Your task to perform on an android device: Search for logitech g910 on amazon.com, select the first entry, add it to the cart, then select checkout. Image 0: 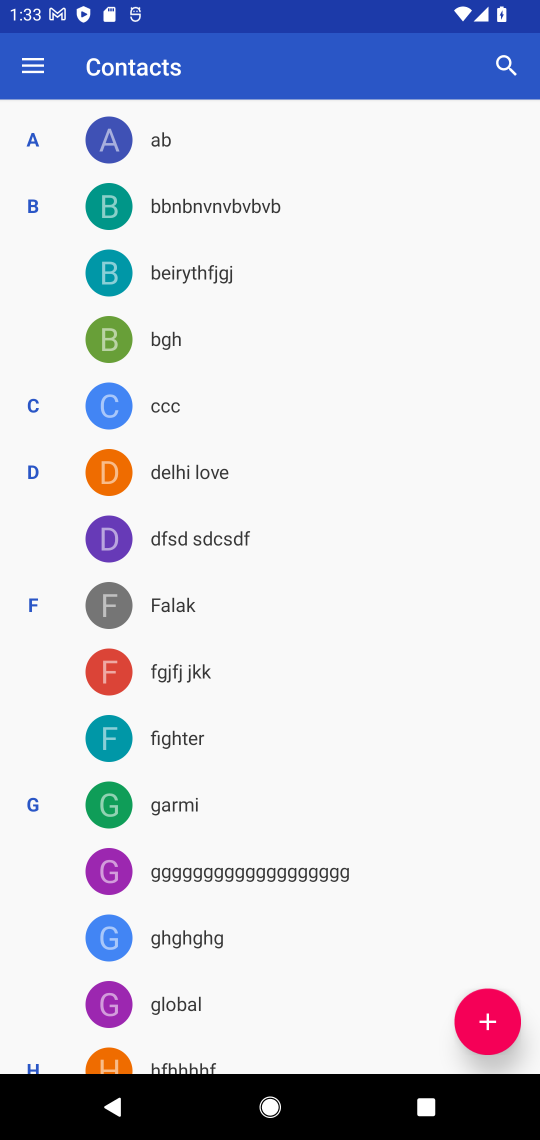
Step 0: press home button
Your task to perform on an android device: Search for logitech g910 on amazon.com, select the first entry, add it to the cart, then select checkout. Image 1: 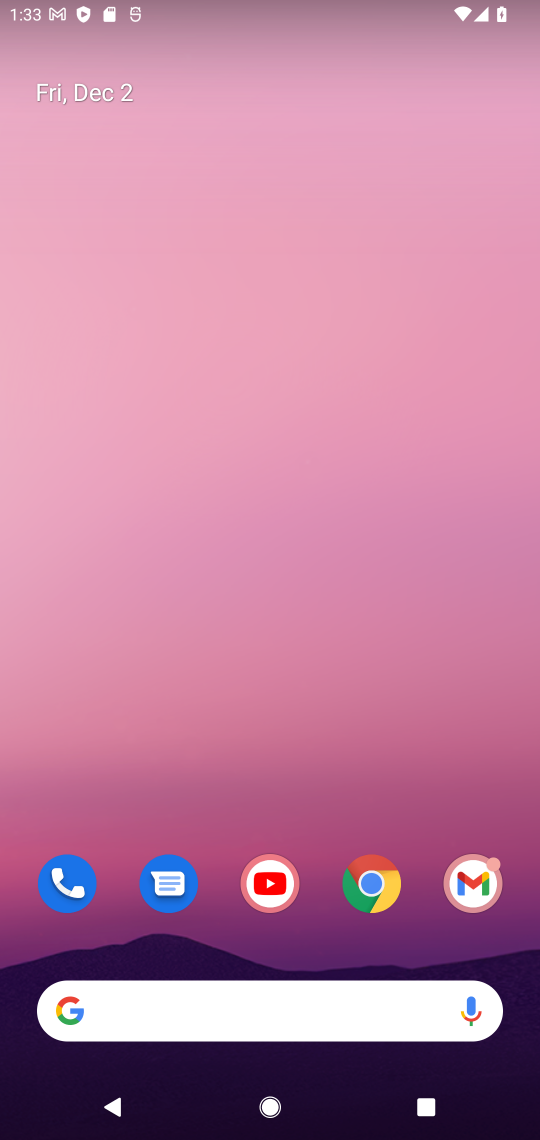
Step 1: click (355, 868)
Your task to perform on an android device: Search for logitech g910 on amazon.com, select the first entry, add it to the cart, then select checkout. Image 2: 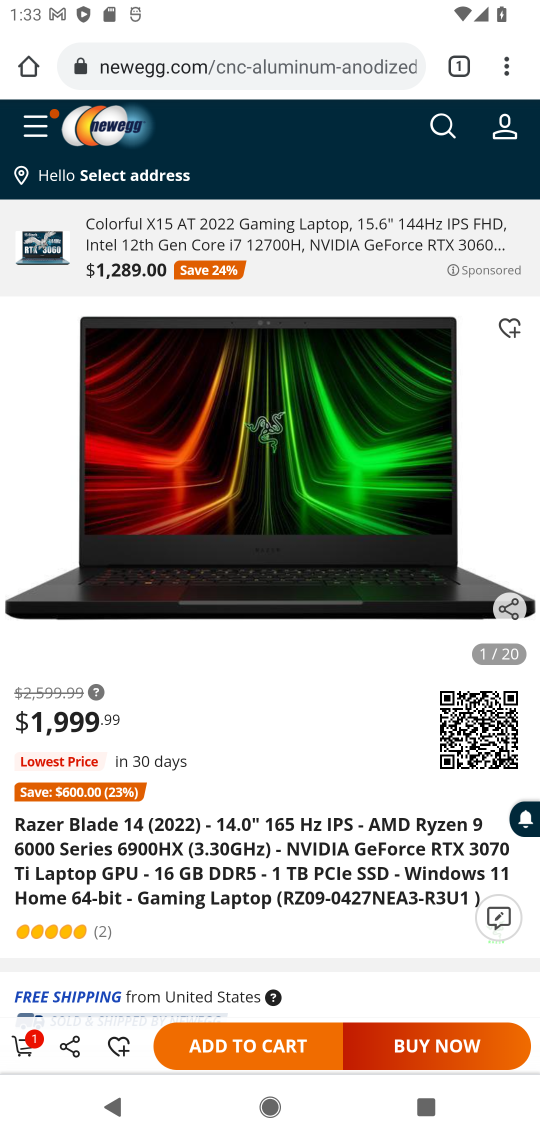
Step 2: click (205, 71)
Your task to perform on an android device: Search for logitech g910 on amazon.com, select the first entry, add it to the cart, then select checkout. Image 3: 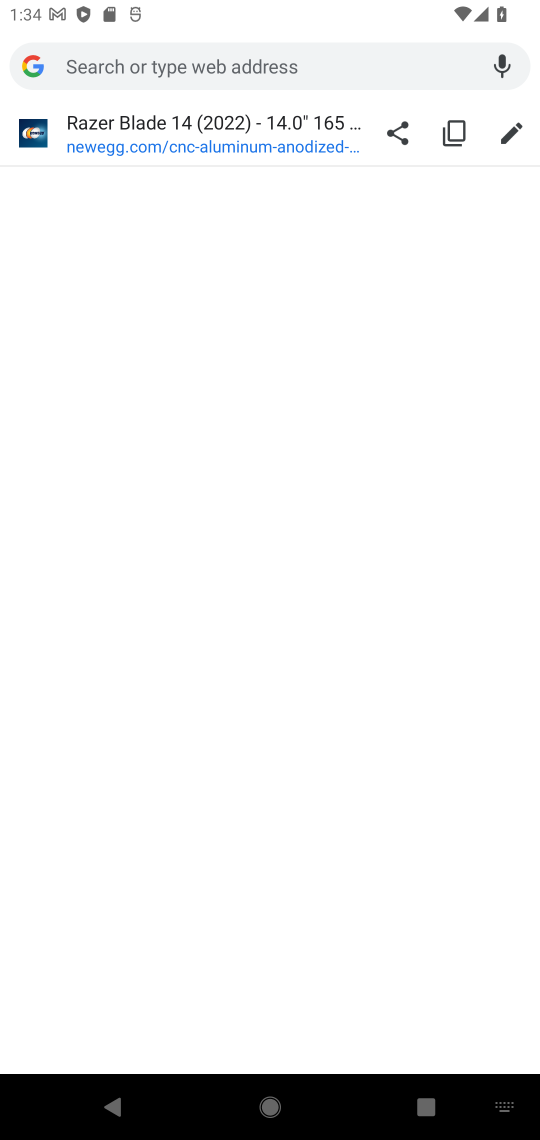
Step 3: type "amazon.com"
Your task to perform on an android device: Search for logitech g910 on amazon.com, select the first entry, add it to the cart, then select checkout. Image 4: 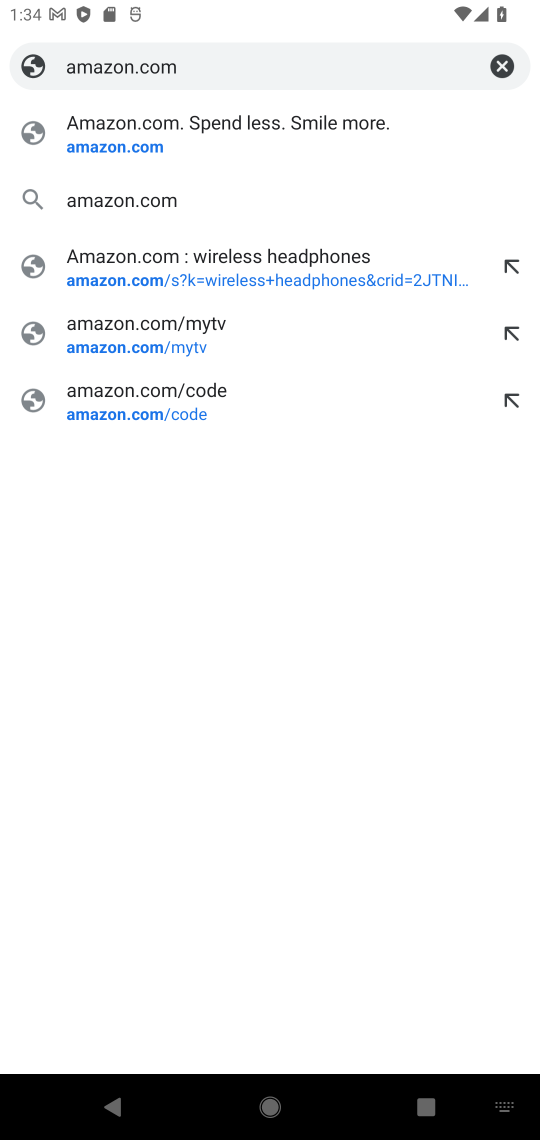
Step 4: click (238, 133)
Your task to perform on an android device: Search for logitech g910 on amazon.com, select the first entry, add it to the cart, then select checkout. Image 5: 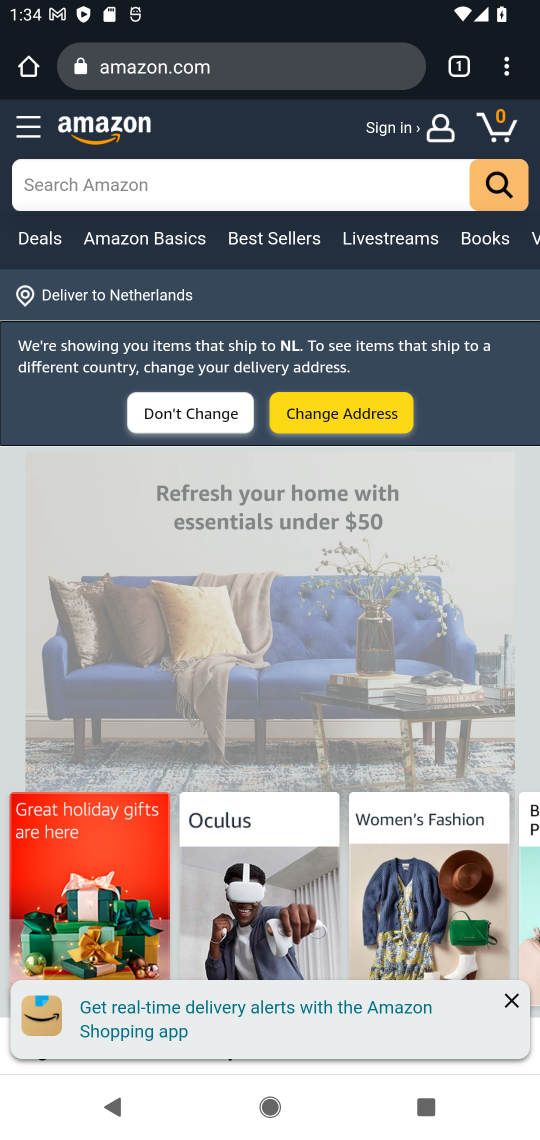
Step 5: click (178, 195)
Your task to perform on an android device: Search for logitech g910 on amazon.com, select the first entry, add it to the cart, then select checkout. Image 6: 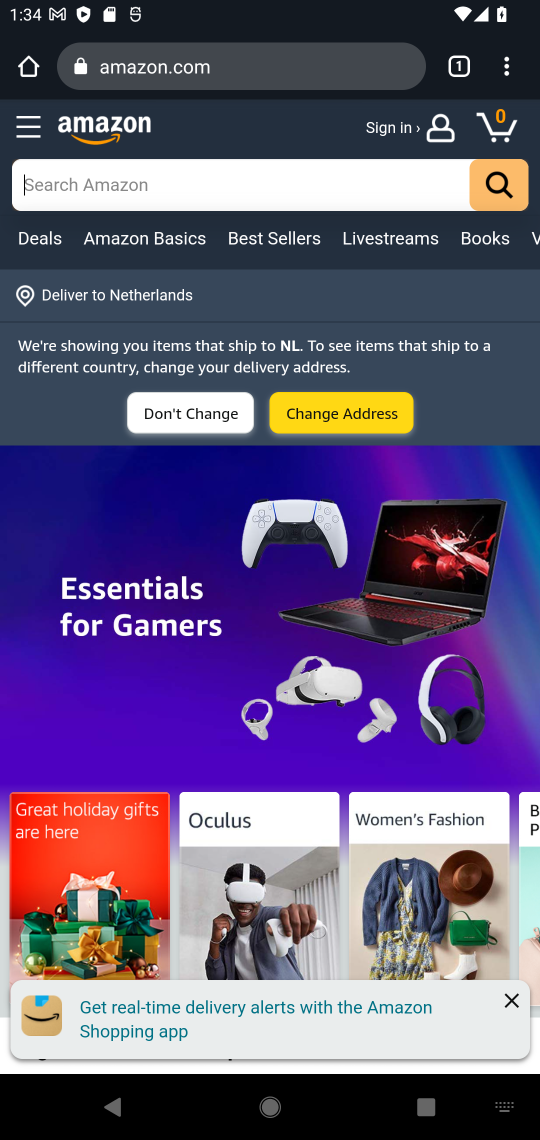
Step 6: type "logitech g910"
Your task to perform on an android device: Search for logitech g910 on amazon.com, select the first entry, add it to the cart, then select checkout. Image 7: 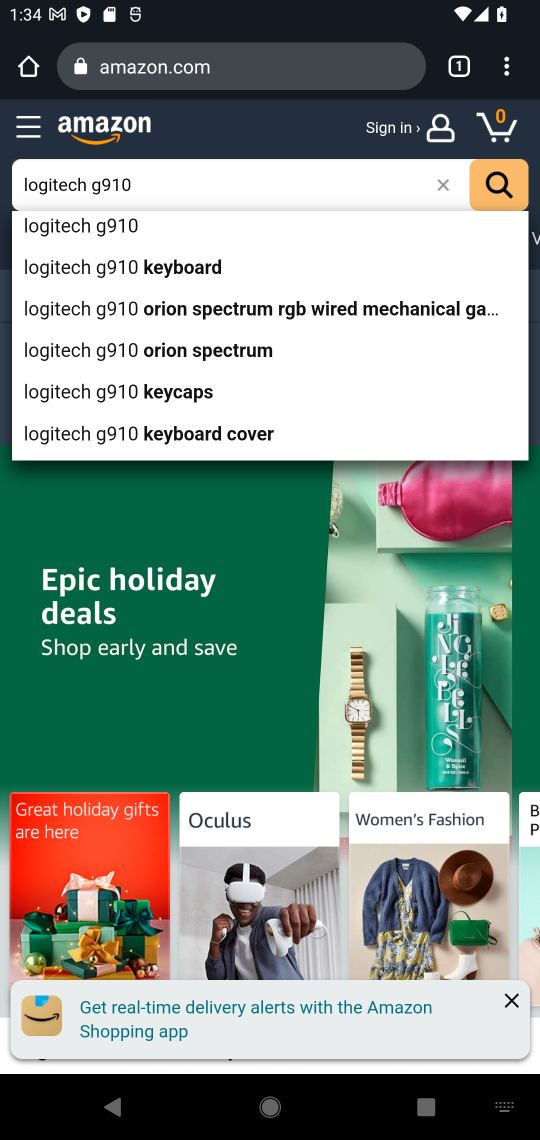
Step 7: click (133, 224)
Your task to perform on an android device: Search for logitech g910 on amazon.com, select the first entry, add it to the cart, then select checkout. Image 8: 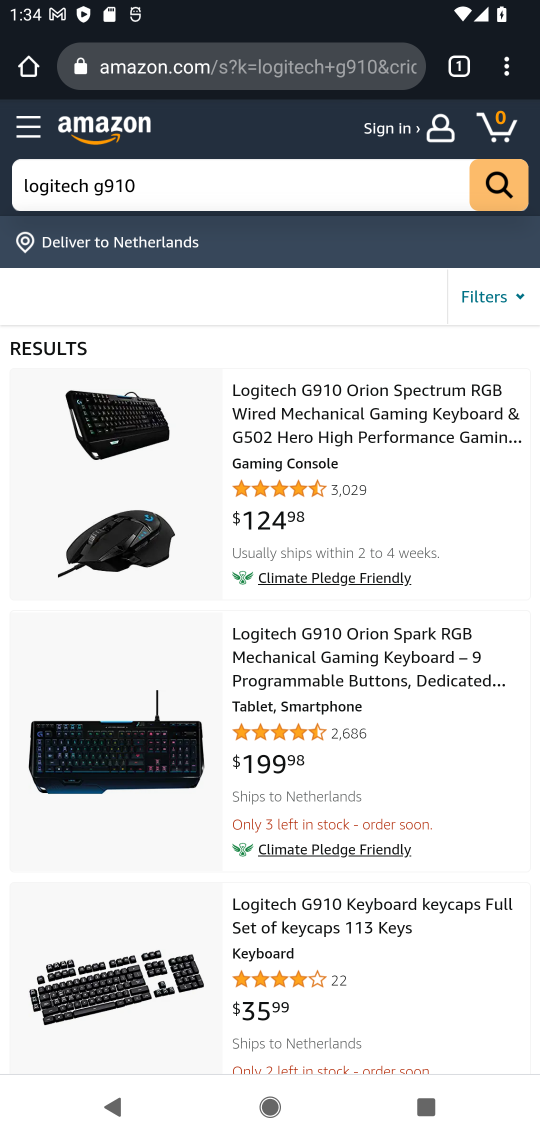
Step 8: click (113, 439)
Your task to perform on an android device: Search for logitech g910 on amazon.com, select the first entry, add it to the cart, then select checkout. Image 9: 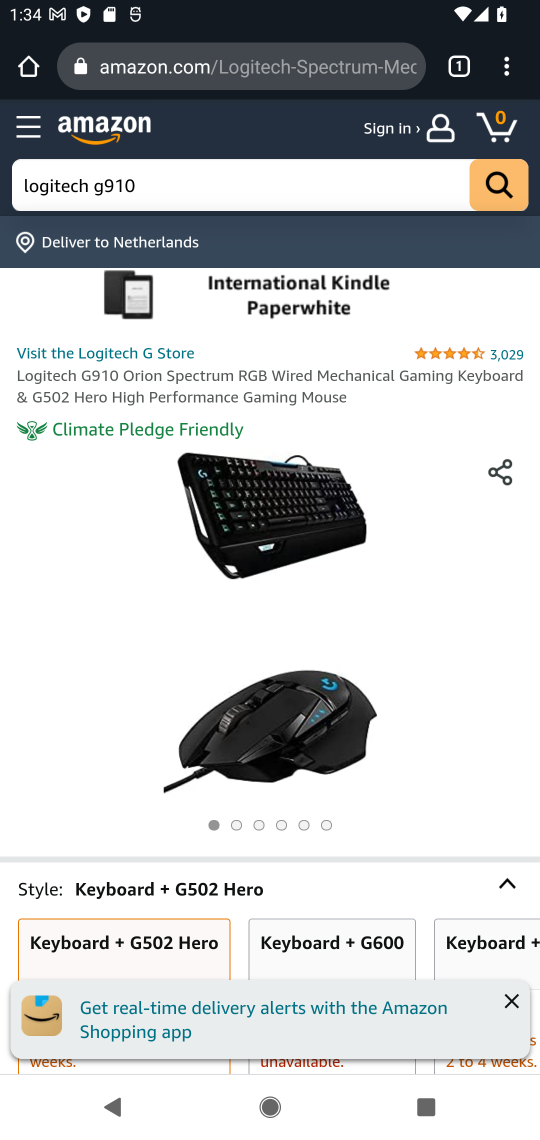
Step 9: task complete